Your task to perform on an android device: visit the assistant section in the google photos Image 0: 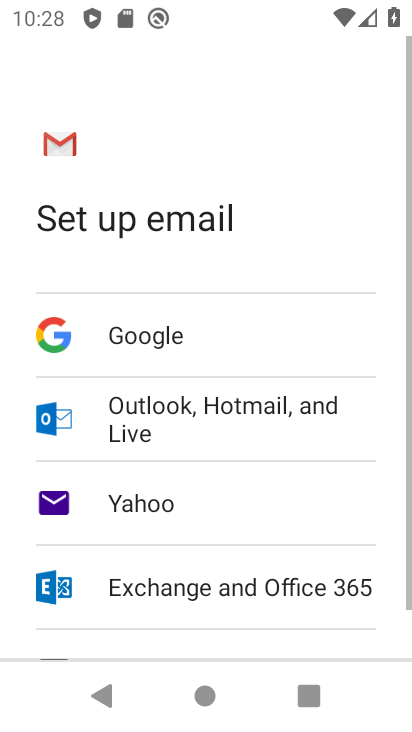
Step 0: press home button
Your task to perform on an android device: visit the assistant section in the google photos Image 1: 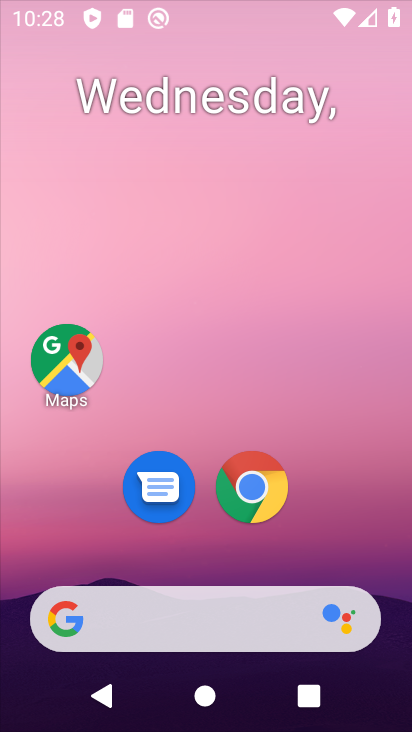
Step 1: drag from (299, 535) to (336, 2)
Your task to perform on an android device: visit the assistant section in the google photos Image 2: 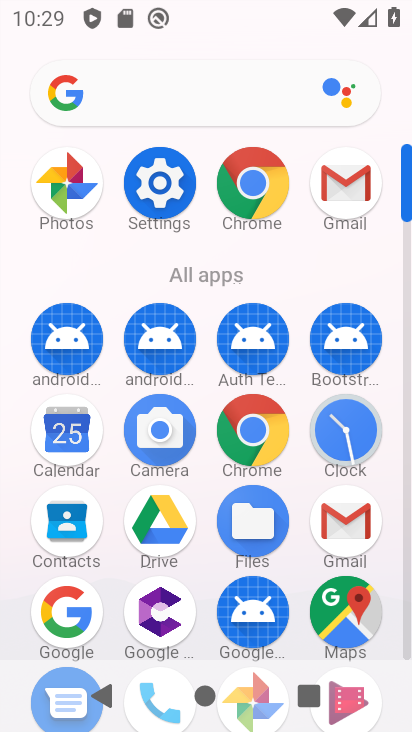
Step 2: drag from (291, 565) to (309, 227)
Your task to perform on an android device: visit the assistant section in the google photos Image 3: 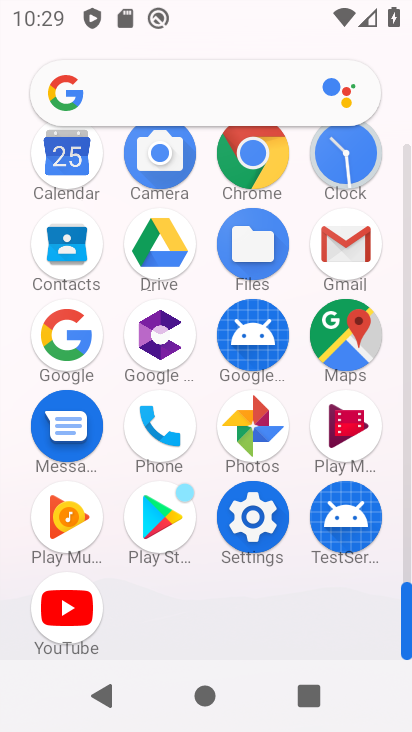
Step 3: click (246, 433)
Your task to perform on an android device: visit the assistant section in the google photos Image 4: 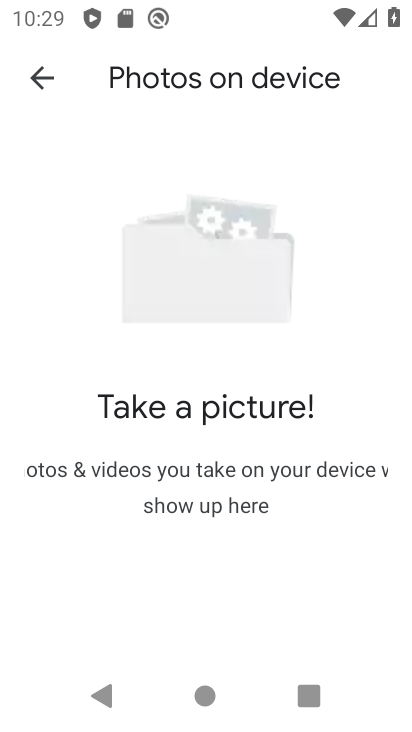
Step 4: press back button
Your task to perform on an android device: visit the assistant section in the google photos Image 5: 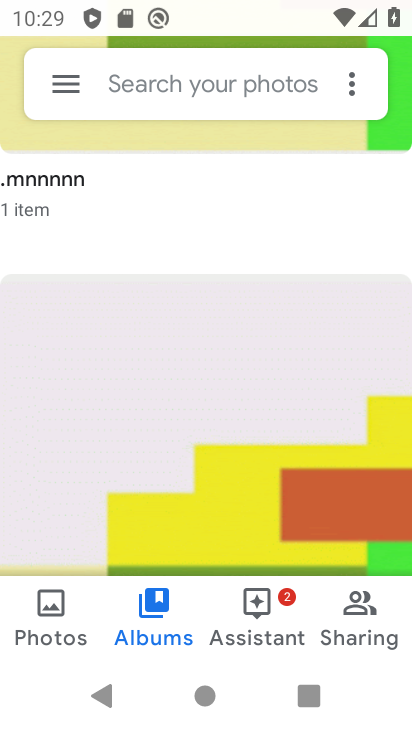
Step 5: click (278, 610)
Your task to perform on an android device: visit the assistant section in the google photos Image 6: 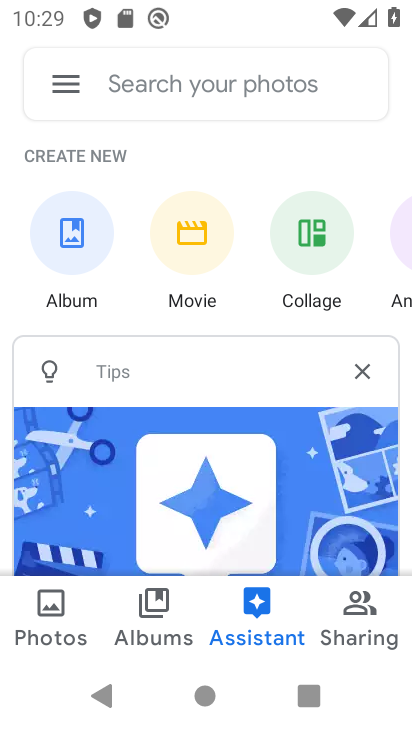
Step 6: task complete